Your task to perform on an android device: read, delete, or share a saved page in the chrome app Image 0: 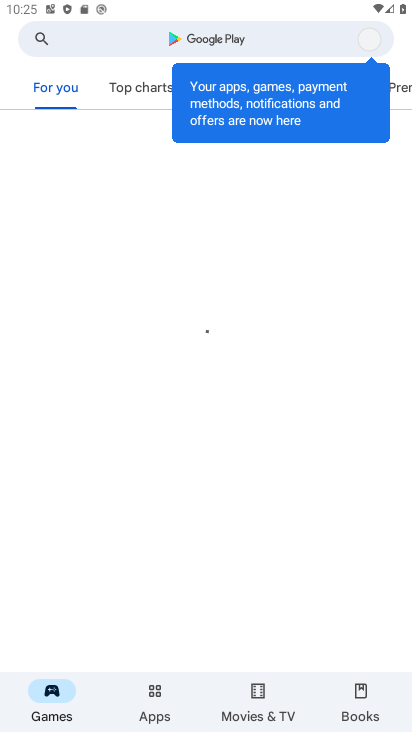
Step 0: press home button
Your task to perform on an android device: read, delete, or share a saved page in the chrome app Image 1: 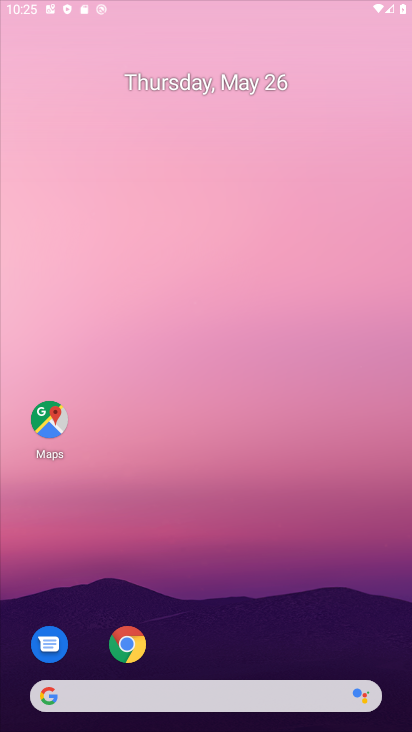
Step 1: drag from (397, 633) to (282, 91)
Your task to perform on an android device: read, delete, or share a saved page in the chrome app Image 2: 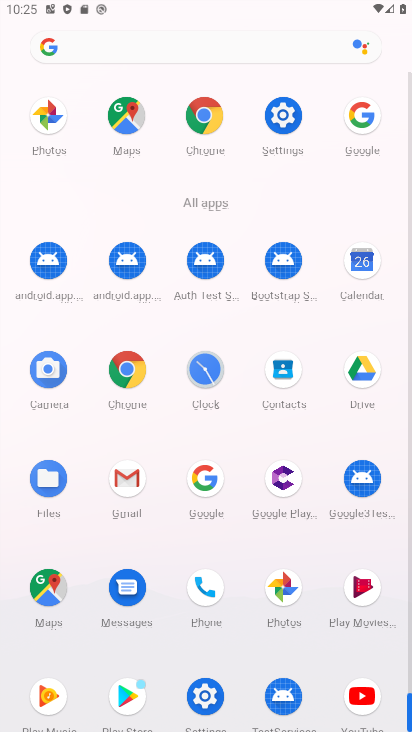
Step 2: click (208, 119)
Your task to perform on an android device: read, delete, or share a saved page in the chrome app Image 3: 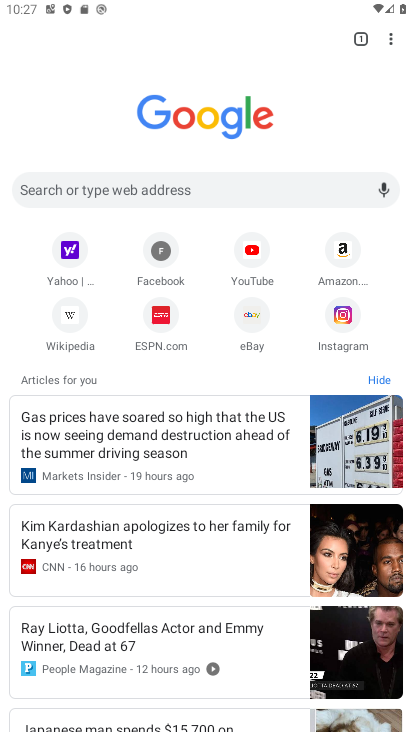
Step 3: task complete